Your task to perform on an android device: toggle wifi Image 0: 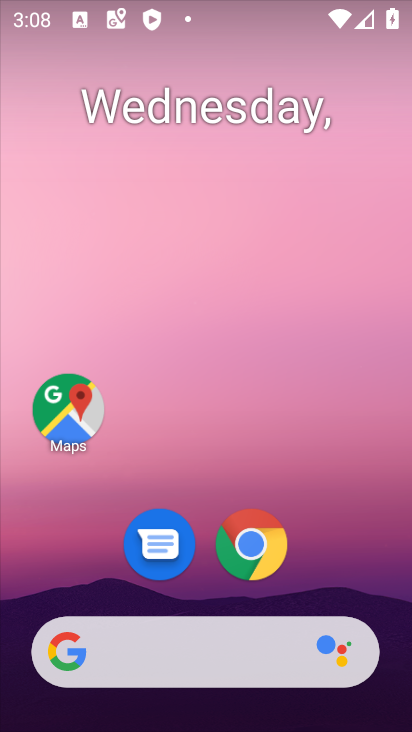
Step 0: drag from (393, 646) to (328, 68)
Your task to perform on an android device: toggle wifi Image 1: 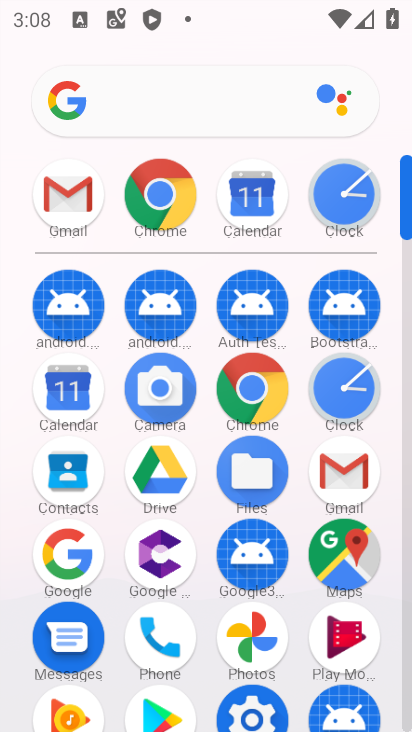
Step 1: click (408, 685)
Your task to perform on an android device: toggle wifi Image 2: 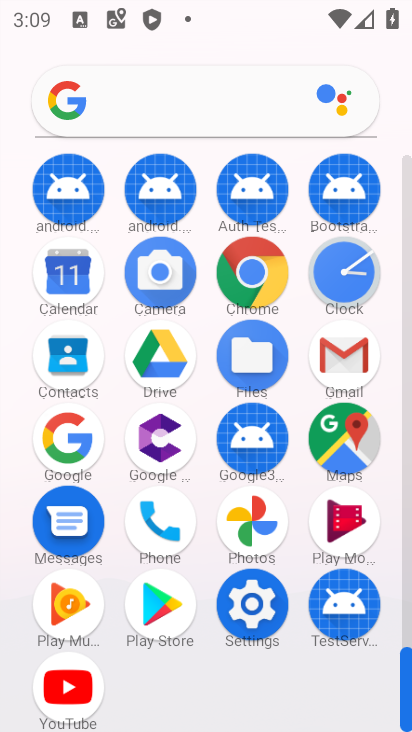
Step 2: click (249, 603)
Your task to perform on an android device: toggle wifi Image 3: 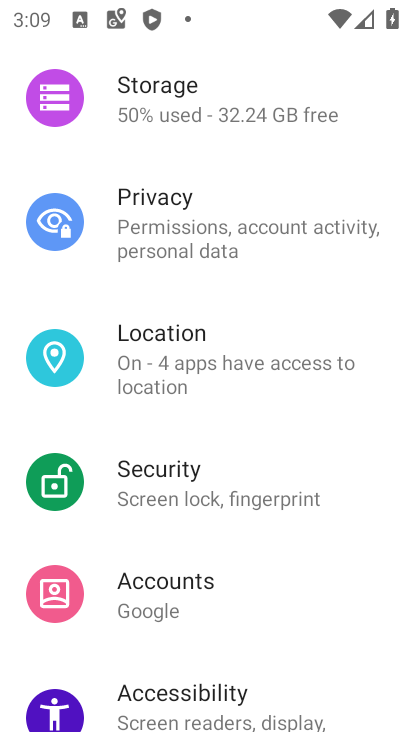
Step 3: drag from (364, 98) to (357, 482)
Your task to perform on an android device: toggle wifi Image 4: 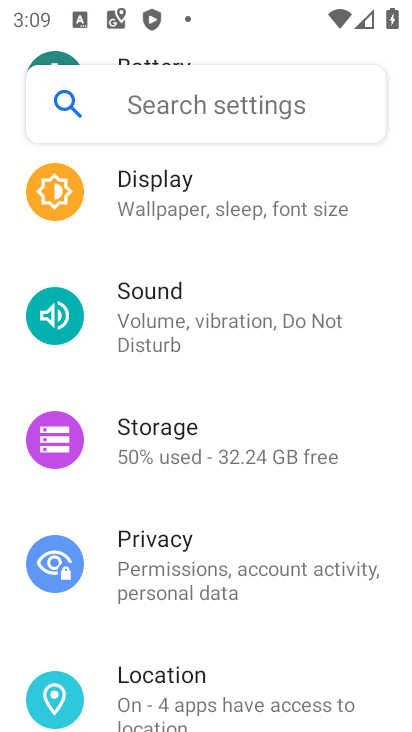
Step 4: drag from (346, 189) to (361, 473)
Your task to perform on an android device: toggle wifi Image 5: 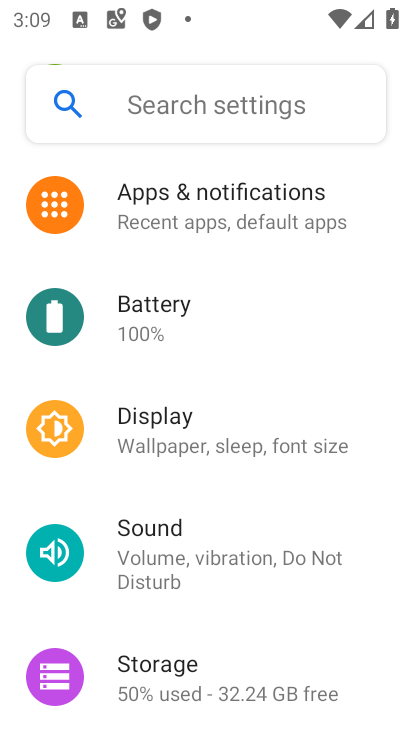
Step 5: drag from (364, 238) to (334, 581)
Your task to perform on an android device: toggle wifi Image 6: 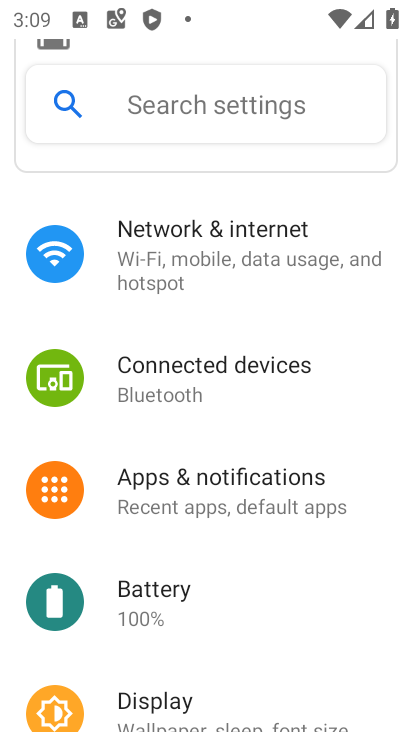
Step 6: click (152, 237)
Your task to perform on an android device: toggle wifi Image 7: 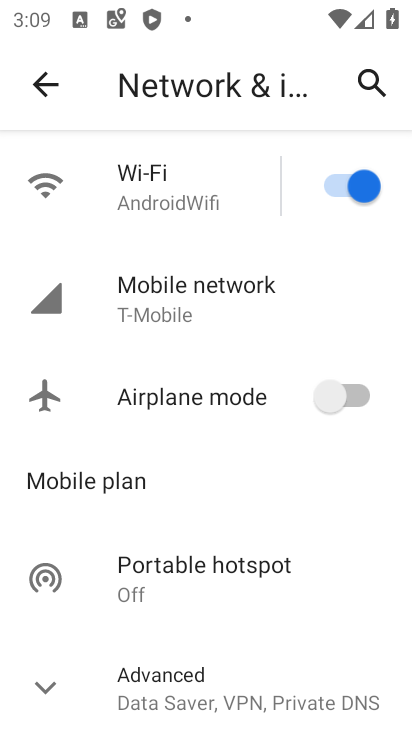
Step 7: click (330, 186)
Your task to perform on an android device: toggle wifi Image 8: 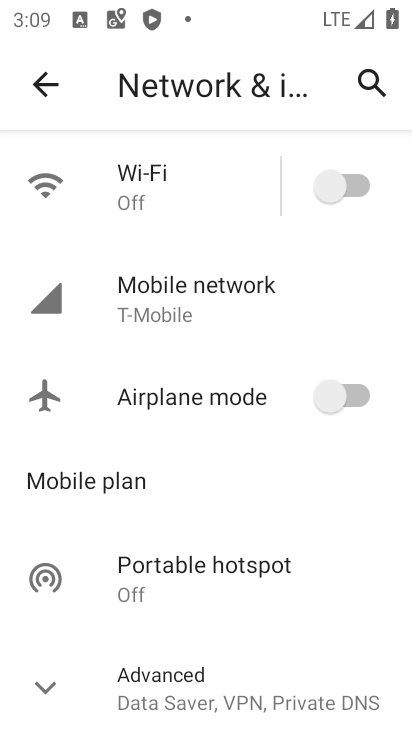
Step 8: task complete